Your task to perform on an android device: Go to privacy settings Image 0: 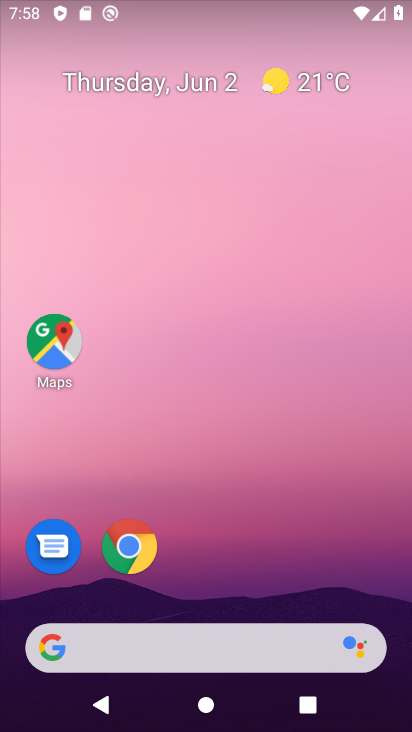
Step 0: drag from (286, 558) to (264, 23)
Your task to perform on an android device: Go to privacy settings Image 1: 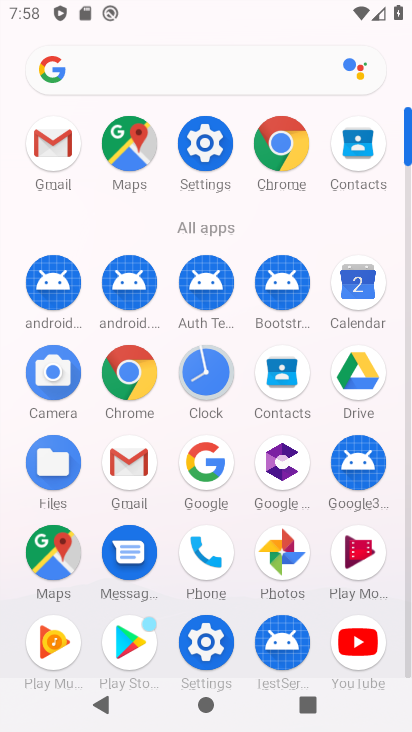
Step 1: click (208, 141)
Your task to perform on an android device: Go to privacy settings Image 2: 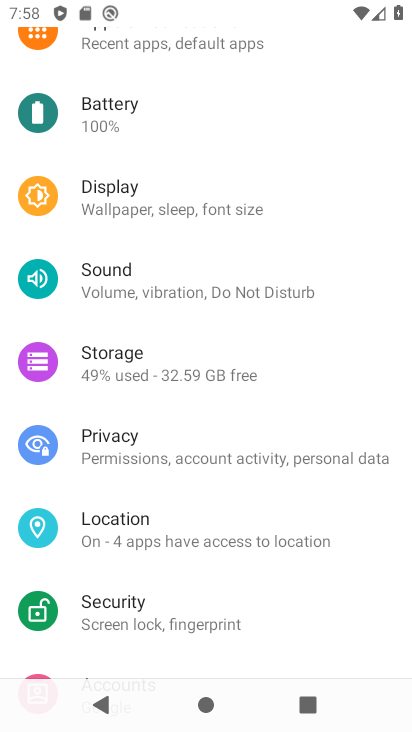
Step 2: click (242, 448)
Your task to perform on an android device: Go to privacy settings Image 3: 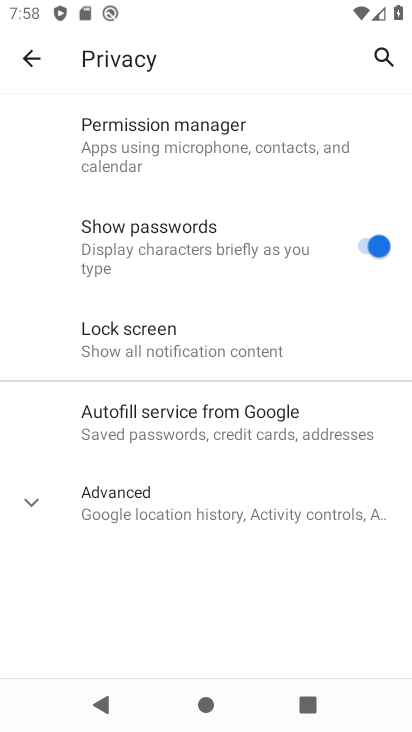
Step 3: task complete